Your task to perform on an android device: Open battery settings Image 0: 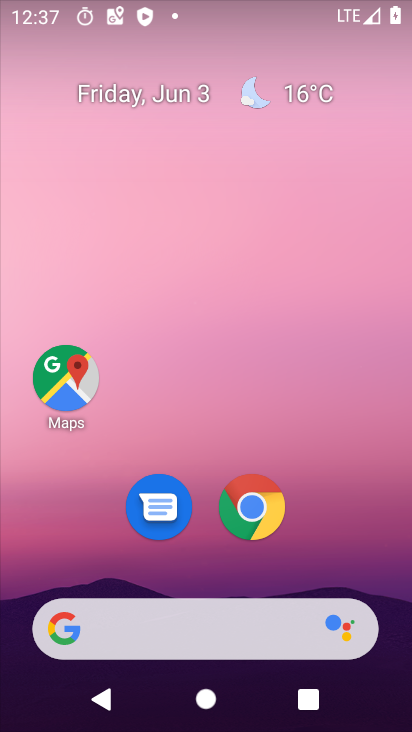
Step 0: press home button
Your task to perform on an android device: Open battery settings Image 1: 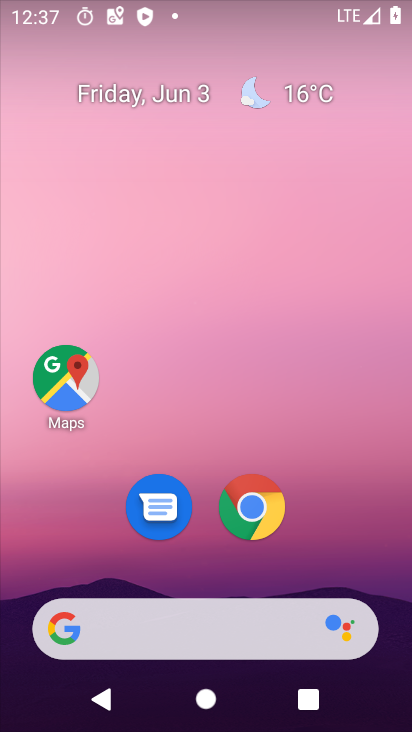
Step 1: drag from (389, 620) to (293, 60)
Your task to perform on an android device: Open battery settings Image 2: 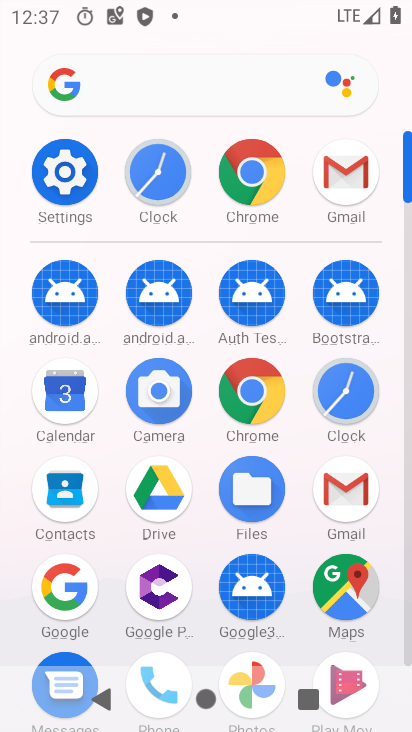
Step 2: click (80, 183)
Your task to perform on an android device: Open battery settings Image 3: 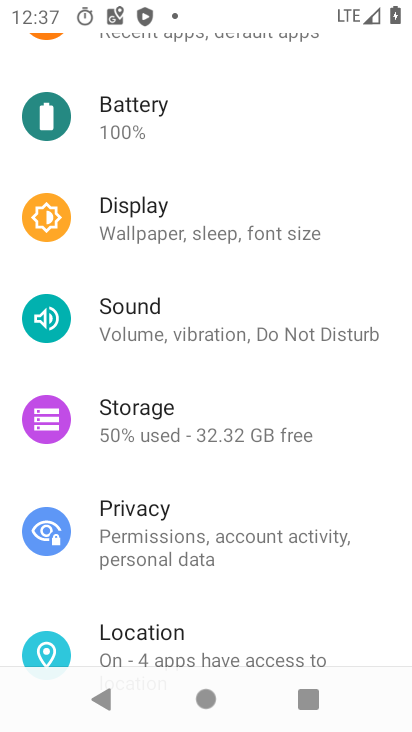
Step 3: click (156, 121)
Your task to perform on an android device: Open battery settings Image 4: 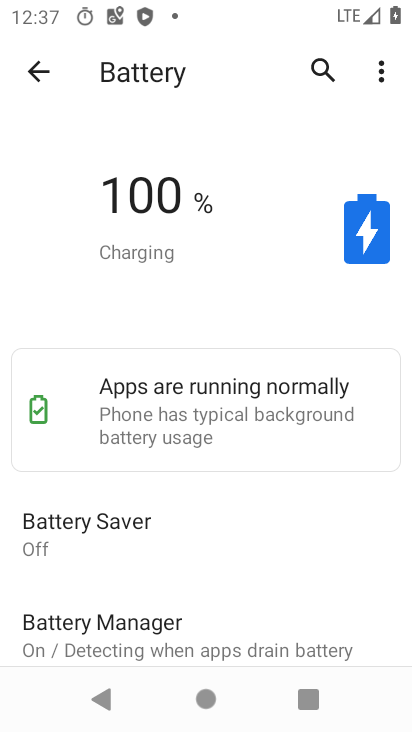
Step 4: click (382, 64)
Your task to perform on an android device: Open battery settings Image 5: 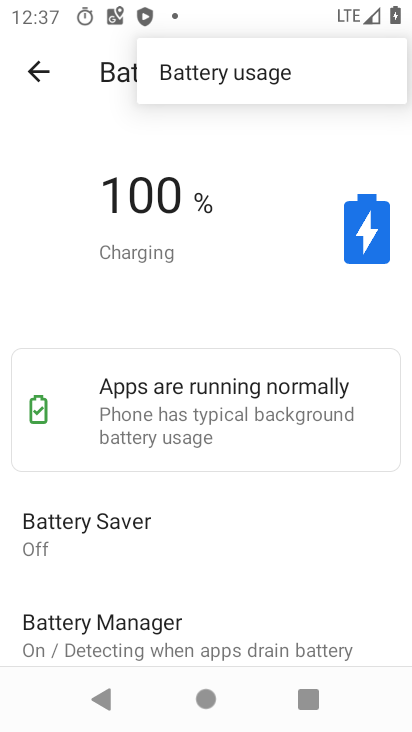
Step 5: task complete